Your task to perform on an android device: Open my contact list Image 0: 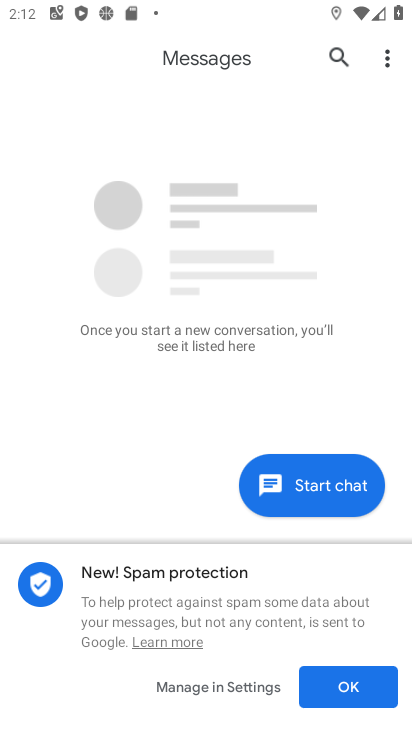
Step 0: press home button
Your task to perform on an android device: Open my contact list Image 1: 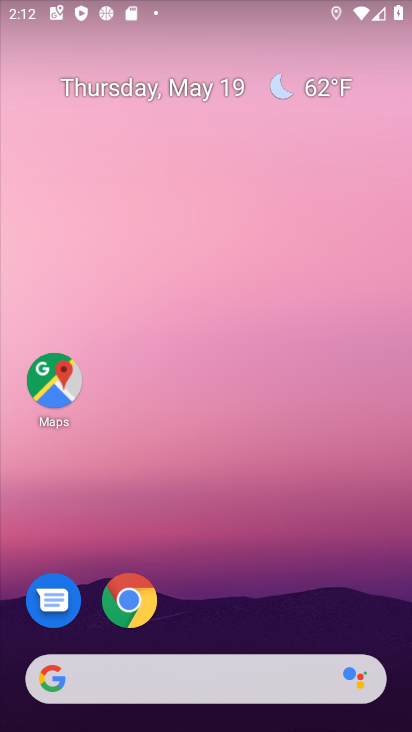
Step 1: drag from (64, 443) to (209, 160)
Your task to perform on an android device: Open my contact list Image 2: 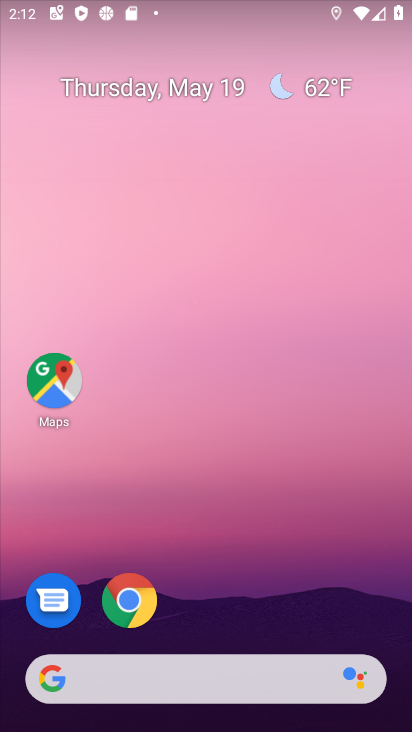
Step 2: drag from (56, 487) to (272, 132)
Your task to perform on an android device: Open my contact list Image 3: 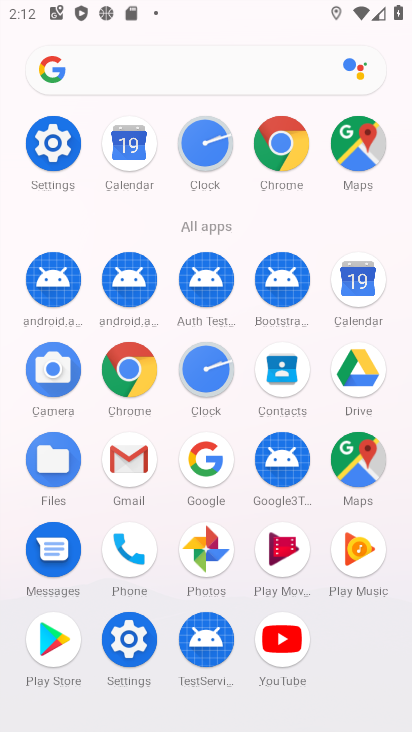
Step 3: click (151, 542)
Your task to perform on an android device: Open my contact list Image 4: 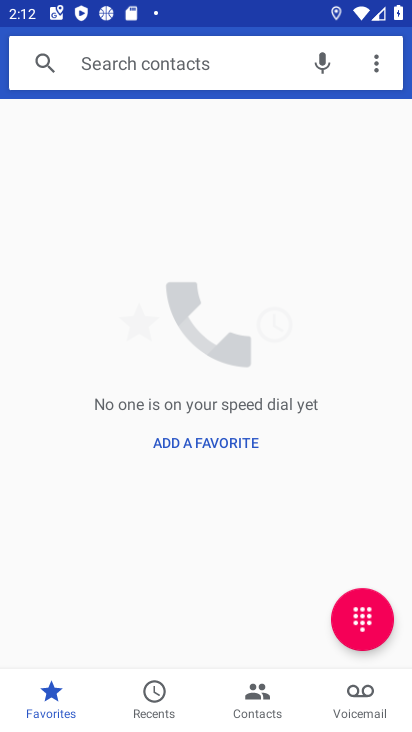
Step 4: click (258, 693)
Your task to perform on an android device: Open my contact list Image 5: 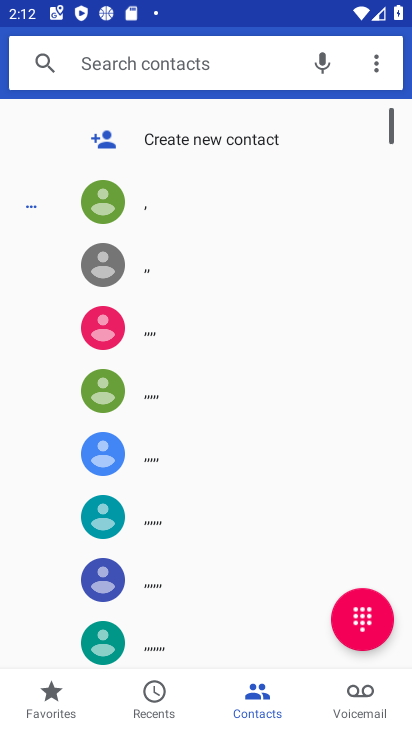
Step 5: task complete